Your task to perform on an android device: Search for sushi restaurants on Maps Image 0: 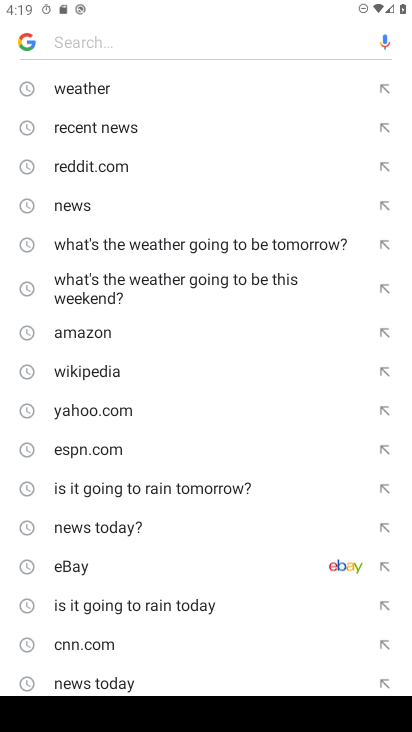
Step 0: press home button
Your task to perform on an android device: Search for sushi restaurants on Maps Image 1: 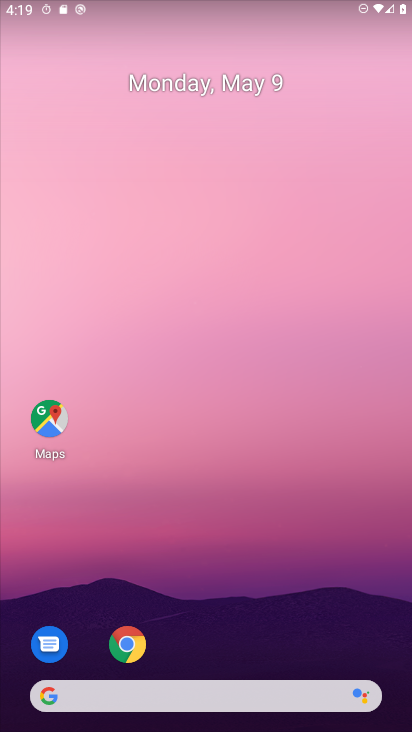
Step 1: click (50, 432)
Your task to perform on an android device: Search for sushi restaurants on Maps Image 2: 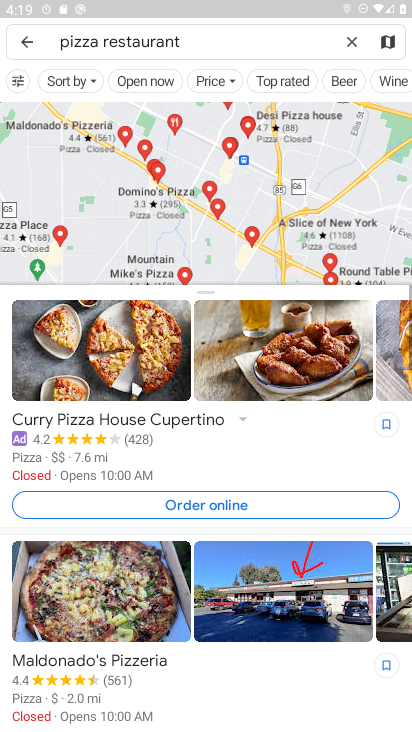
Step 2: click (351, 43)
Your task to perform on an android device: Search for sushi restaurants on Maps Image 3: 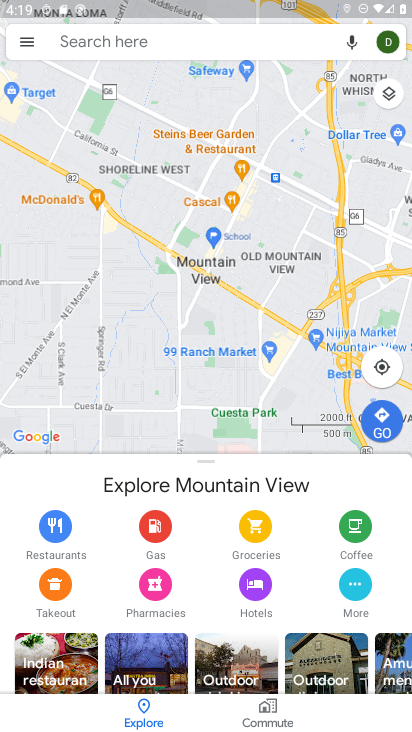
Step 3: click (127, 39)
Your task to perform on an android device: Search for sushi restaurants on Maps Image 4: 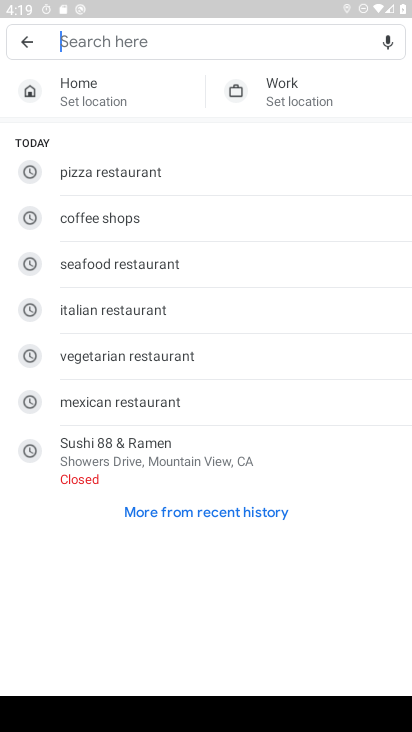
Step 4: type "sushi restaurants"
Your task to perform on an android device: Search for sushi restaurants on Maps Image 5: 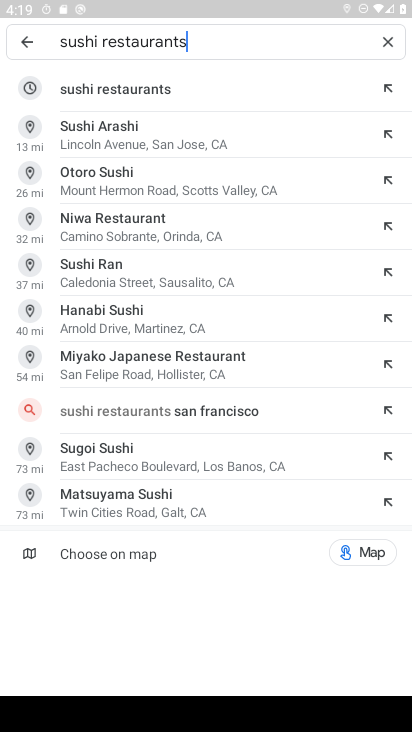
Step 5: click (145, 85)
Your task to perform on an android device: Search for sushi restaurants on Maps Image 6: 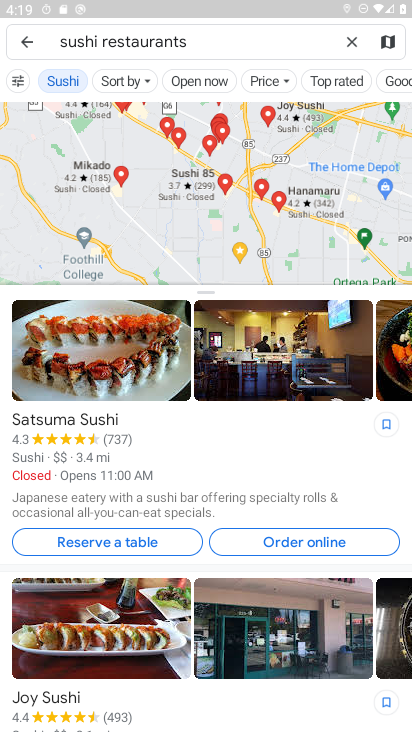
Step 6: task complete